Your task to perform on an android device: turn pop-ups off in chrome Image 0: 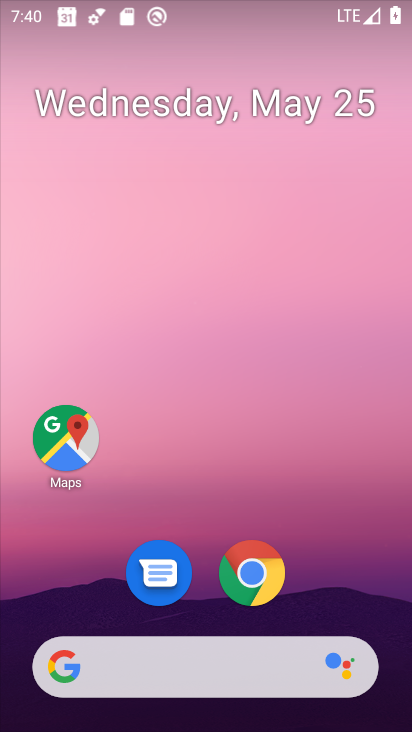
Step 0: click (250, 566)
Your task to perform on an android device: turn pop-ups off in chrome Image 1: 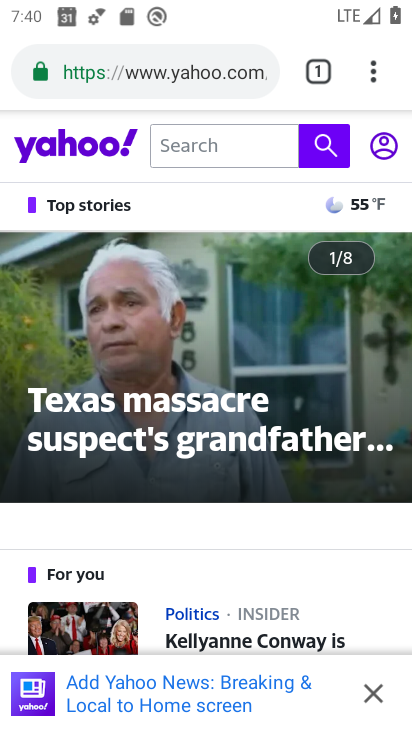
Step 1: click (373, 70)
Your task to perform on an android device: turn pop-ups off in chrome Image 2: 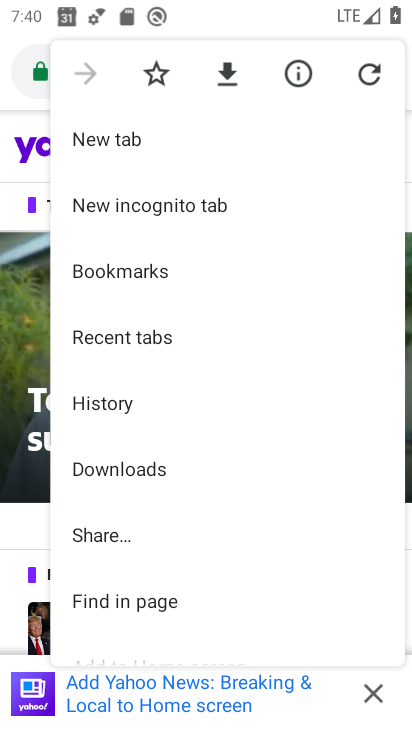
Step 2: drag from (227, 641) to (231, 392)
Your task to perform on an android device: turn pop-ups off in chrome Image 3: 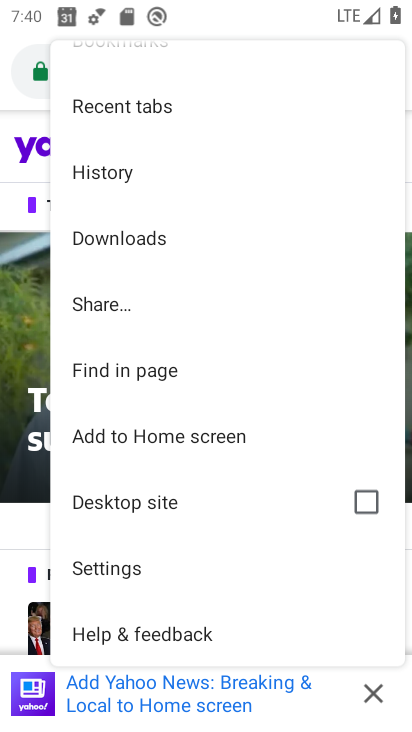
Step 3: click (115, 563)
Your task to perform on an android device: turn pop-ups off in chrome Image 4: 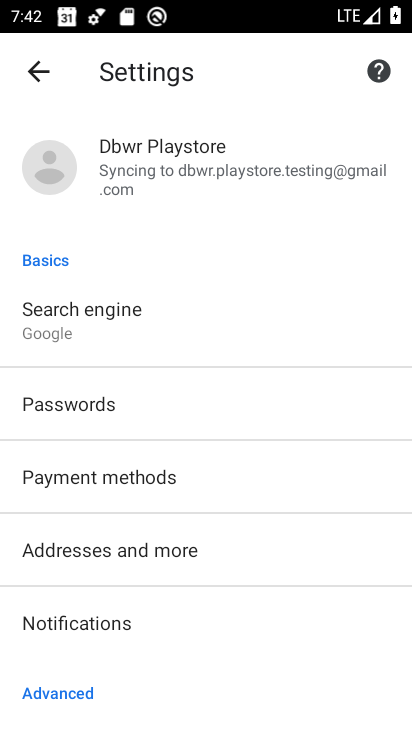
Step 4: drag from (230, 683) to (231, 399)
Your task to perform on an android device: turn pop-ups off in chrome Image 5: 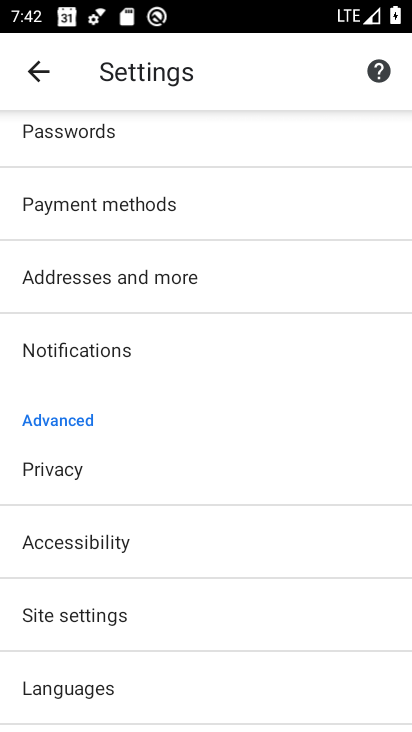
Step 5: click (57, 622)
Your task to perform on an android device: turn pop-ups off in chrome Image 6: 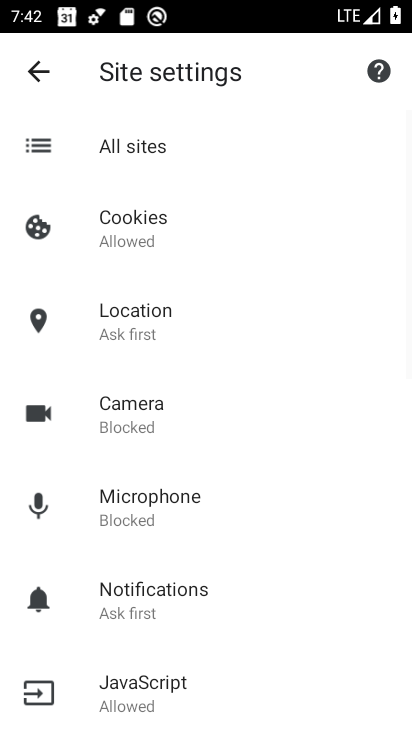
Step 6: drag from (281, 679) to (240, 443)
Your task to perform on an android device: turn pop-ups off in chrome Image 7: 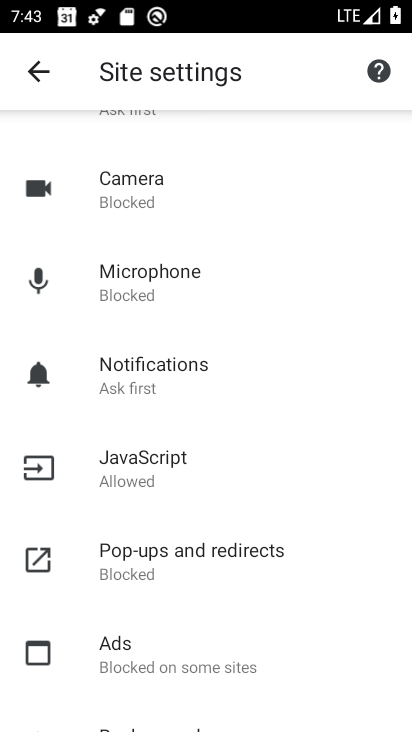
Step 7: click (150, 562)
Your task to perform on an android device: turn pop-ups off in chrome Image 8: 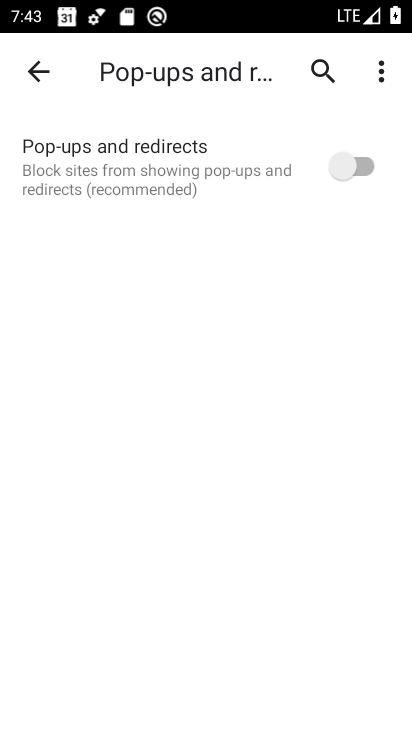
Step 8: task complete